Your task to perform on an android device: turn on wifi Image 0: 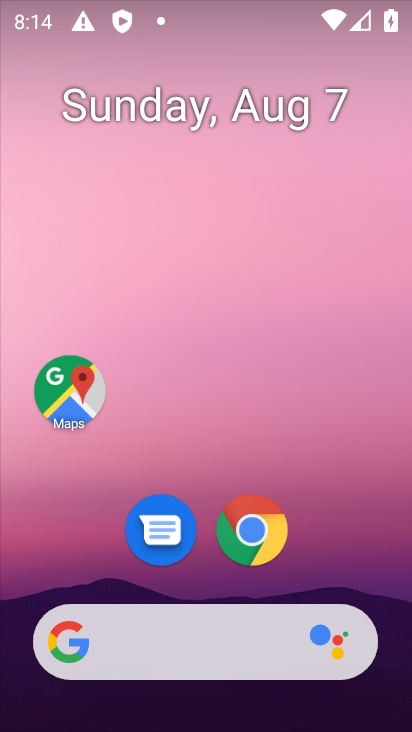
Step 0: drag from (217, 578) to (184, 6)
Your task to perform on an android device: turn on wifi Image 1: 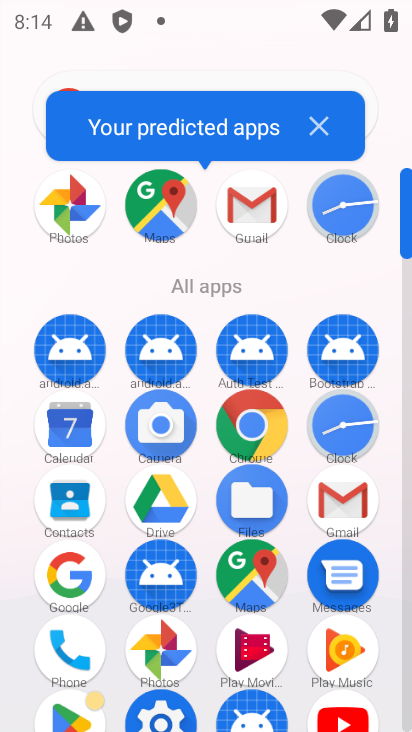
Step 1: drag from (181, 684) to (256, 141)
Your task to perform on an android device: turn on wifi Image 2: 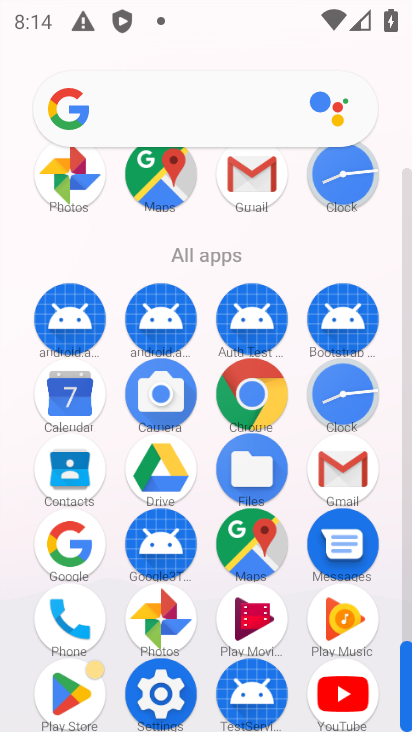
Step 2: click (166, 700)
Your task to perform on an android device: turn on wifi Image 3: 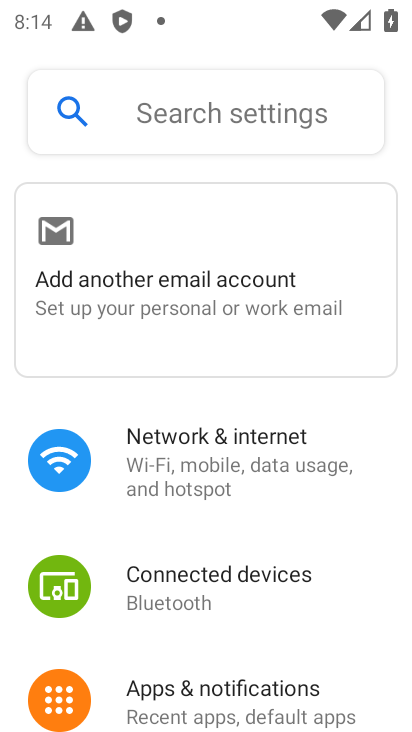
Step 3: click (209, 462)
Your task to perform on an android device: turn on wifi Image 4: 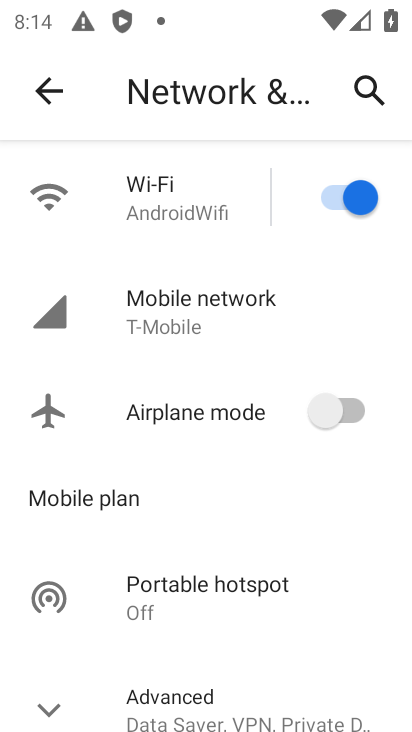
Step 4: task complete